Your task to perform on an android device: set default search engine in the chrome app Image 0: 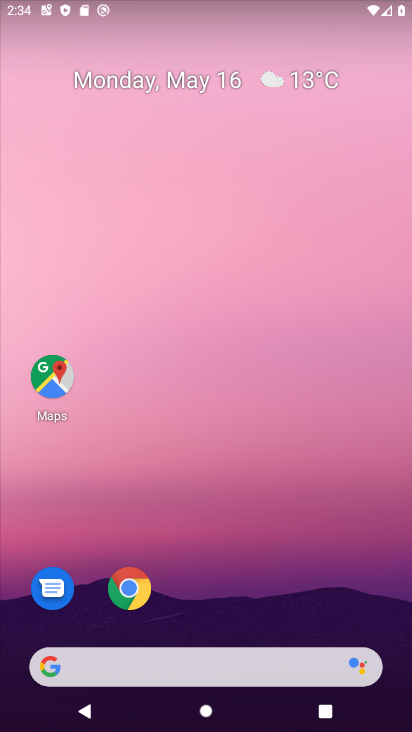
Step 0: drag from (333, 606) to (315, 0)
Your task to perform on an android device: set default search engine in the chrome app Image 1: 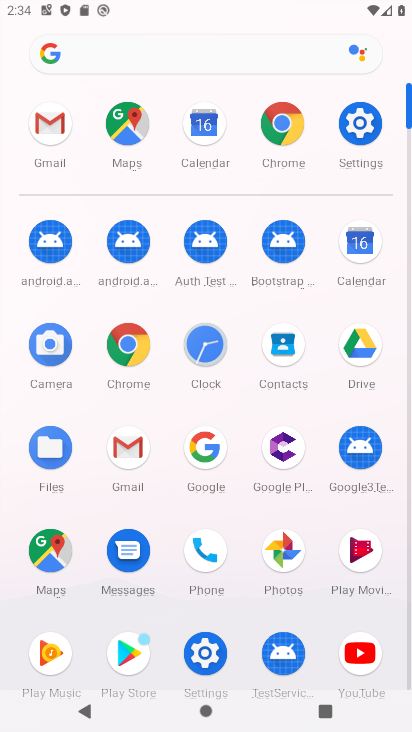
Step 1: click (356, 125)
Your task to perform on an android device: set default search engine in the chrome app Image 2: 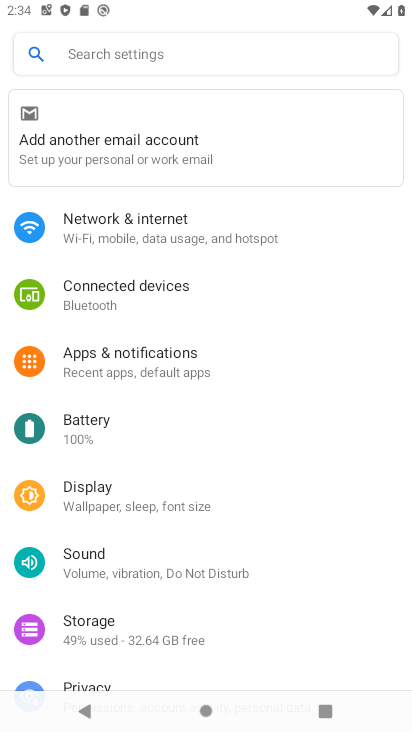
Step 2: press home button
Your task to perform on an android device: set default search engine in the chrome app Image 3: 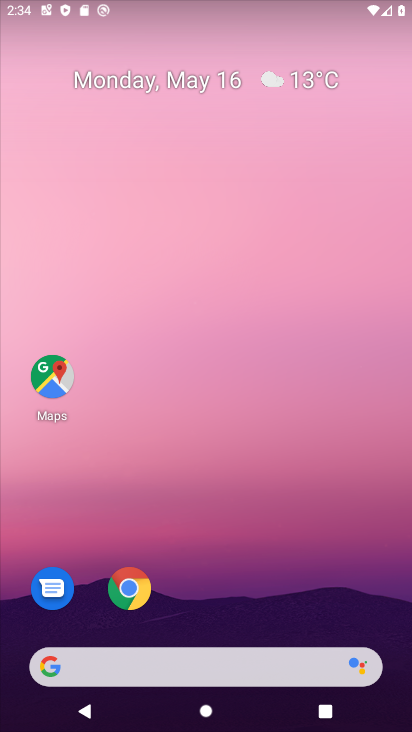
Step 3: drag from (176, 639) to (181, 0)
Your task to perform on an android device: set default search engine in the chrome app Image 4: 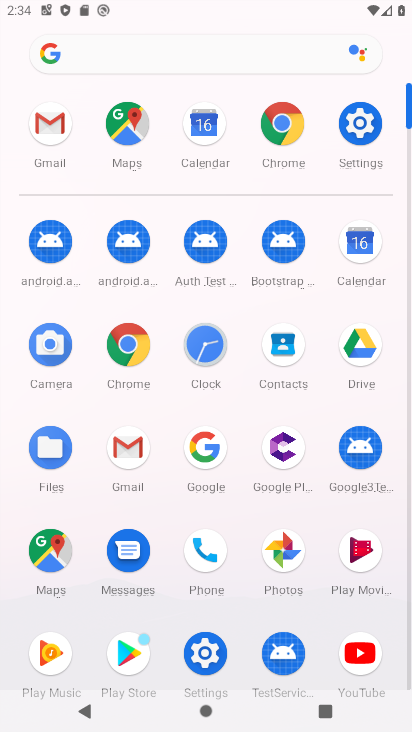
Step 4: click (125, 343)
Your task to perform on an android device: set default search engine in the chrome app Image 5: 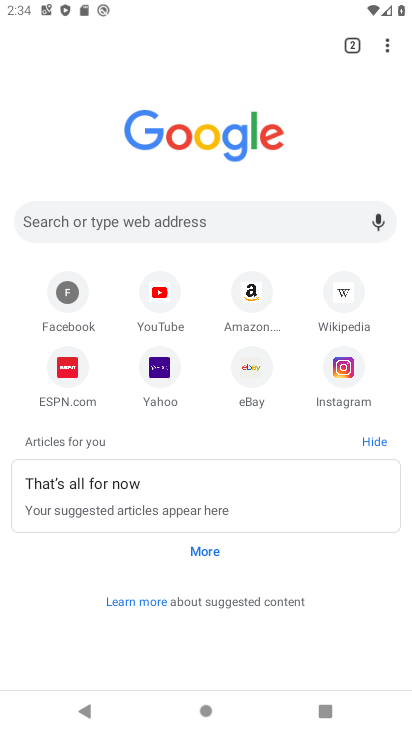
Step 5: click (385, 39)
Your task to perform on an android device: set default search engine in the chrome app Image 6: 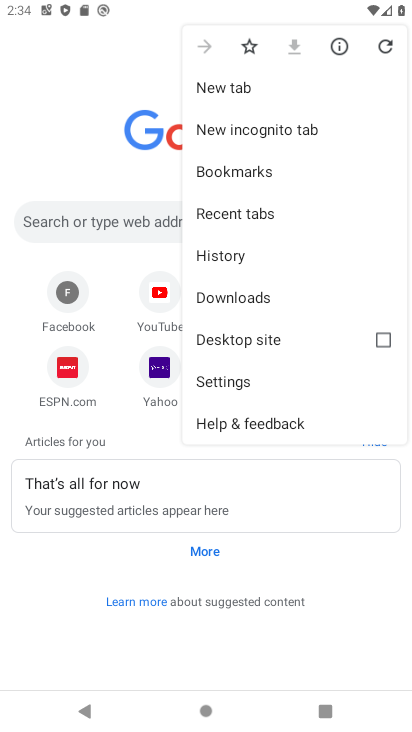
Step 6: click (248, 376)
Your task to perform on an android device: set default search engine in the chrome app Image 7: 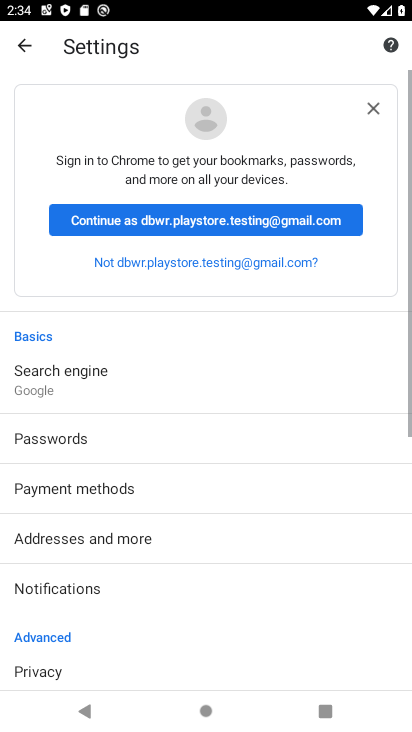
Step 7: drag from (205, 660) to (222, 68)
Your task to perform on an android device: set default search engine in the chrome app Image 8: 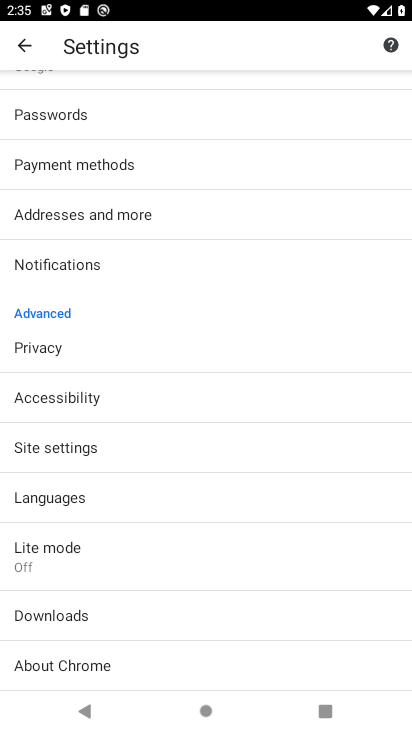
Step 8: click (156, 454)
Your task to perform on an android device: set default search engine in the chrome app Image 9: 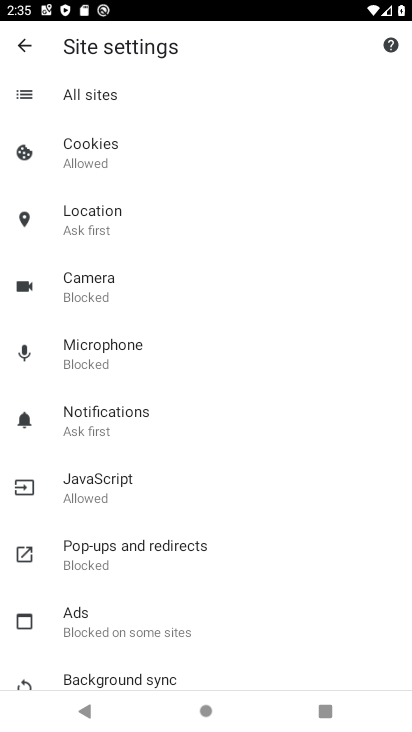
Step 9: press back button
Your task to perform on an android device: set default search engine in the chrome app Image 10: 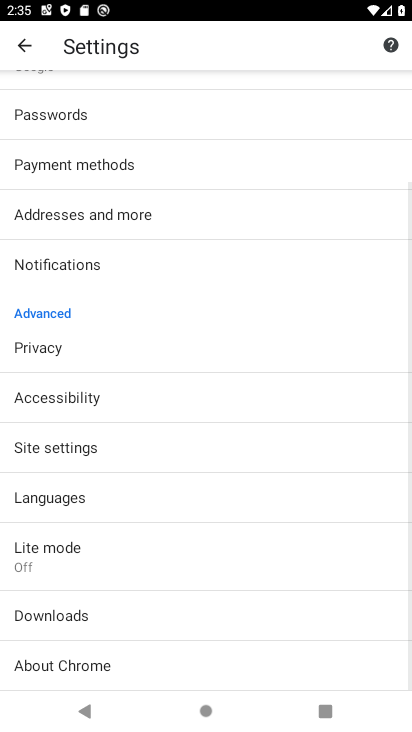
Step 10: drag from (144, 633) to (132, 158)
Your task to perform on an android device: set default search engine in the chrome app Image 11: 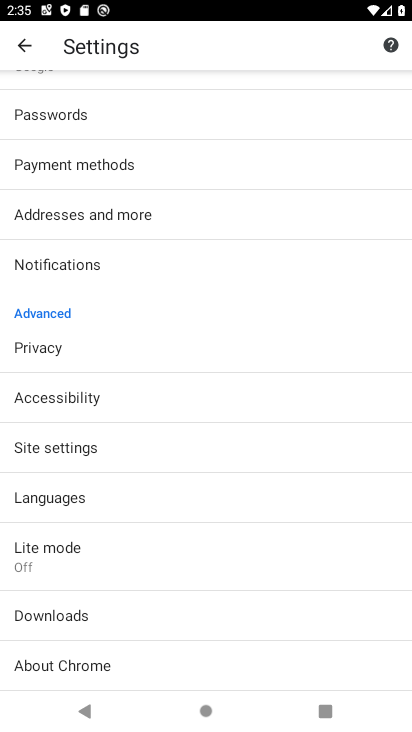
Step 11: click (99, 436)
Your task to perform on an android device: set default search engine in the chrome app Image 12: 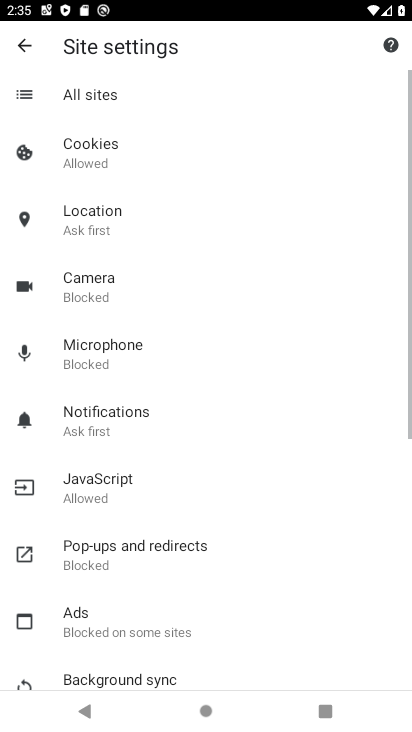
Step 12: press back button
Your task to perform on an android device: set default search engine in the chrome app Image 13: 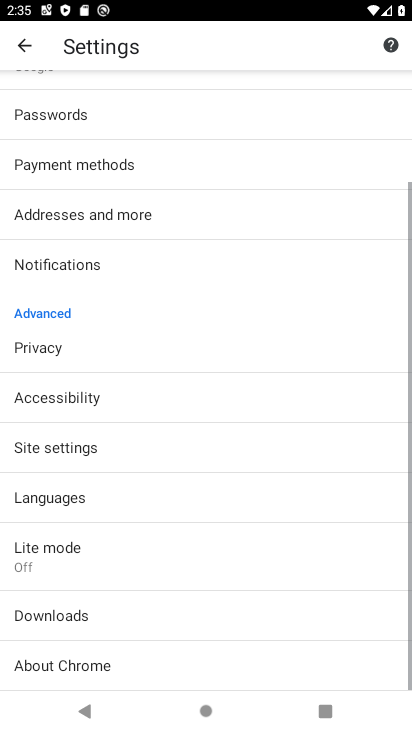
Step 13: drag from (144, 305) to (148, 683)
Your task to perform on an android device: set default search engine in the chrome app Image 14: 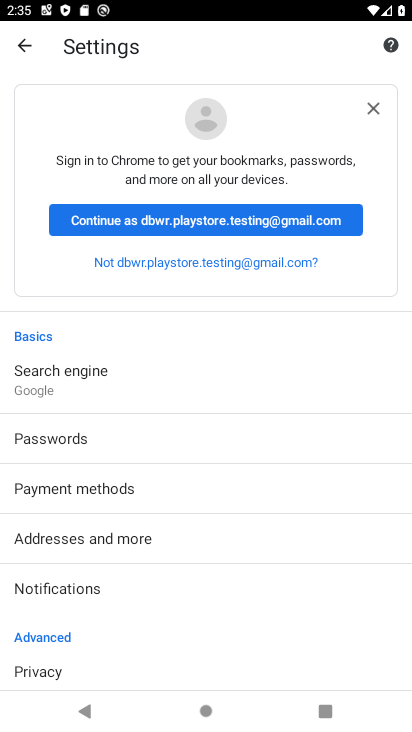
Step 14: click (100, 374)
Your task to perform on an android device: set default search engine in the chrome app Image 15: 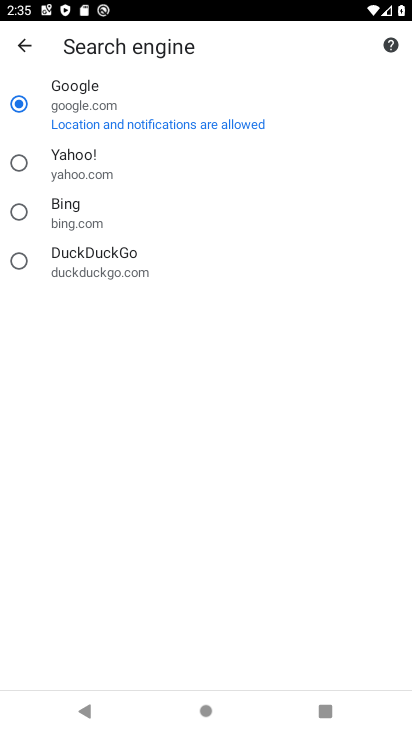
Step 15: task complete